Your task to perform on an android device: Go to internet settings Image 0: 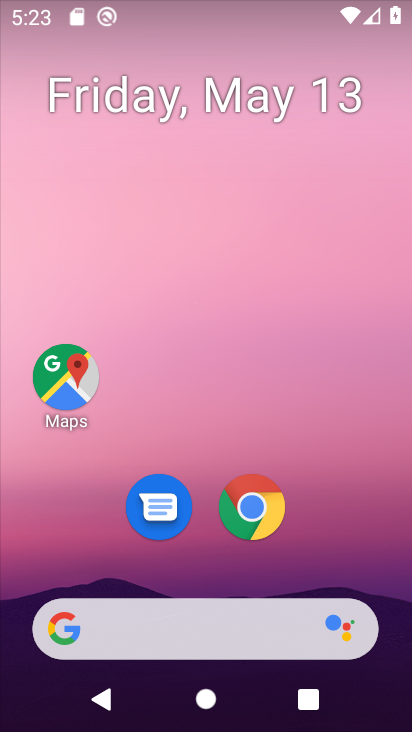
Step 0: drag from (338, 522) to (235, 78)
Your task to perform on an android device: Go to internet settings Image 1: 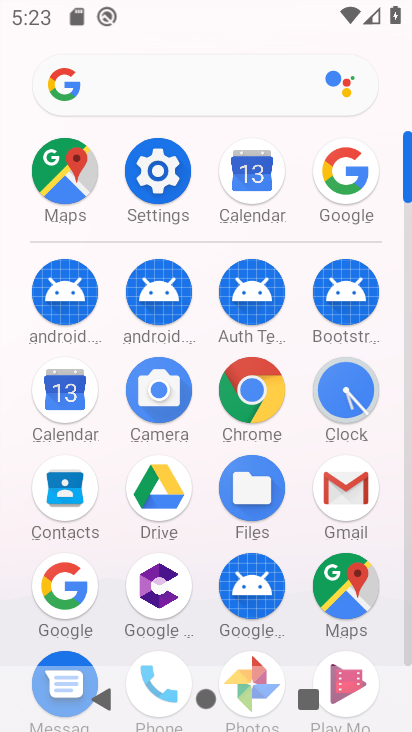
Step 1: click (161, 181)
Your task to perform on an android device: Go to internet settings Image 2: 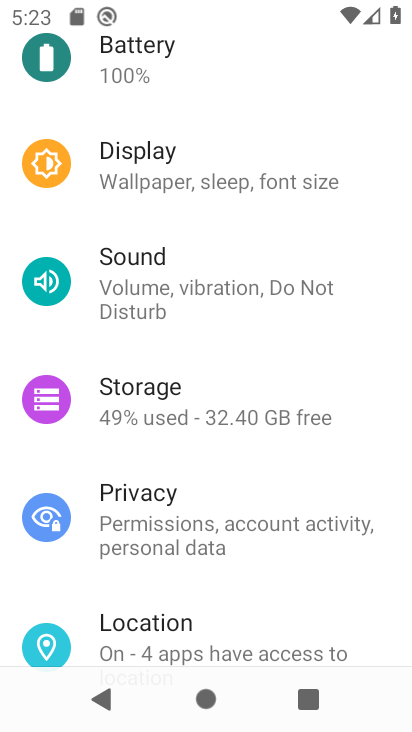
Step 2: drag from (255, 121) to (265, 676)
Your task to perform on an android device: Go to internet settings Image 3: 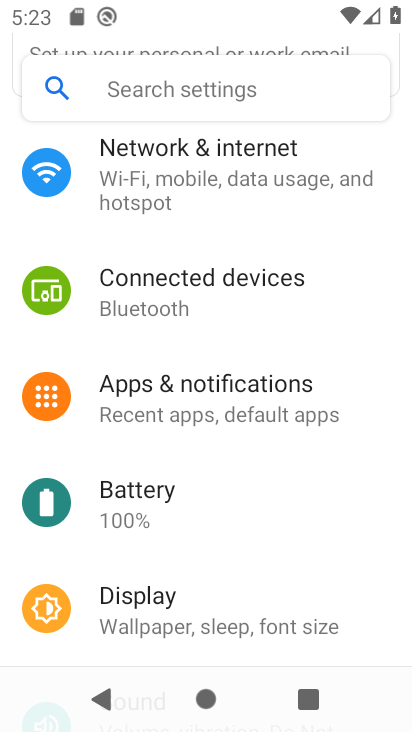
Step 3: click (250, 174)
Your task to perform on an android device: Go to internet settings Image 4: 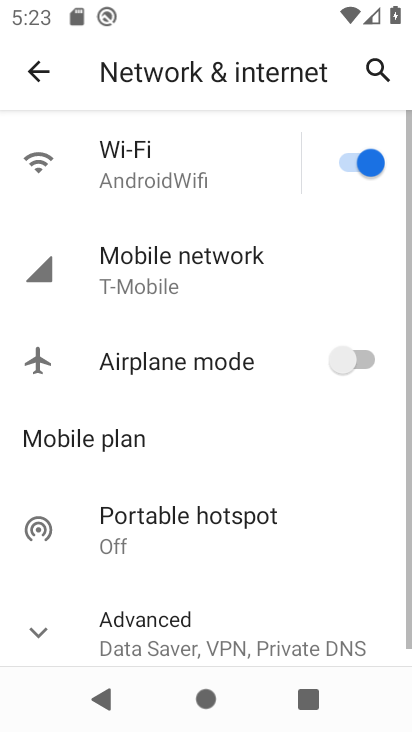
Step 4: task complete